Your task to perform on an android device: see tabs open on other devices in the chrome app Image 0: 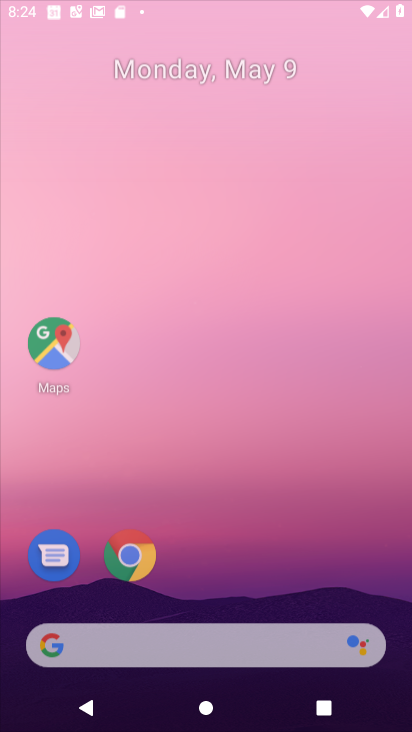
Step 0: drag from (190, 577) to (206, 301)
Your task to perform on an android device: see tabs open on other devices in the chrome app Image 1: 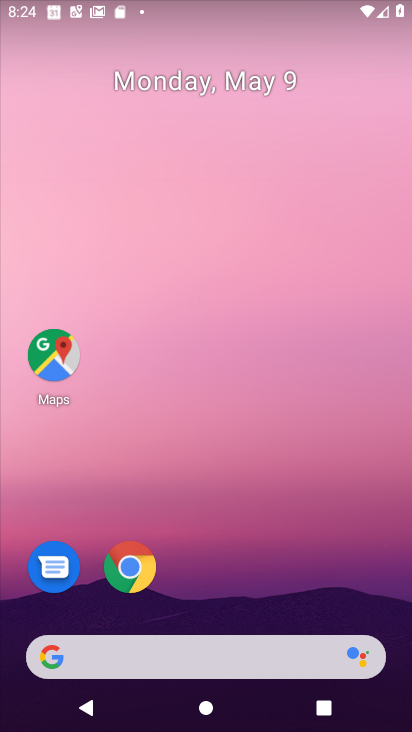
Step 1: drag from (176, 609) to (262, 286)
Your task to perform on an android device: see tabs open on other devices in the chrome app Image 2: 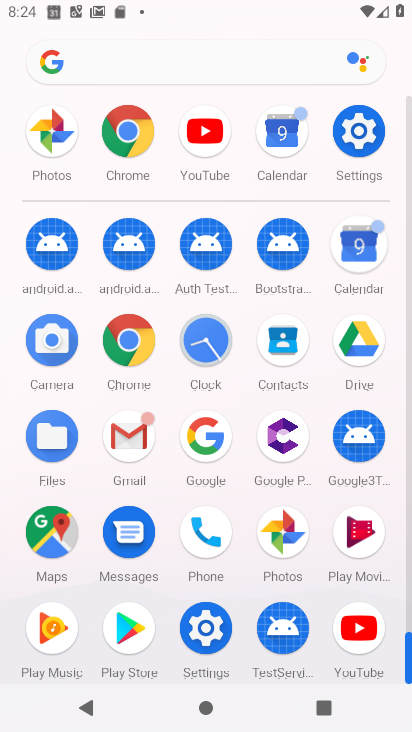
Step 2: click (120, 333)
Your task to perform on an android device: see tabs open on other devices in the chrome app Image 3: 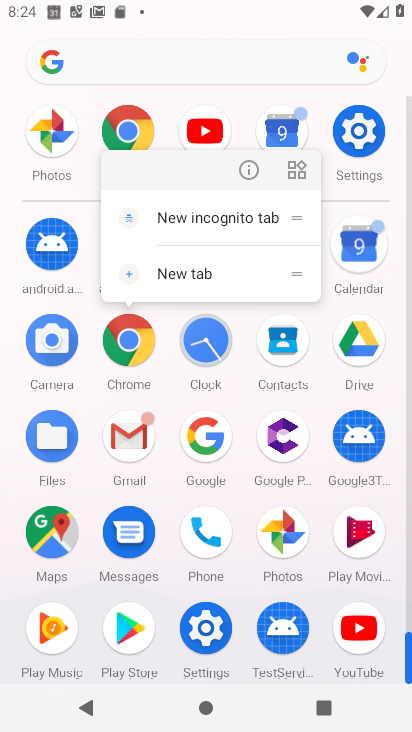
Step 3: click (251, 180)
Your task to perform on an android device: see tabs open on other devices in the chrome app Image 4: 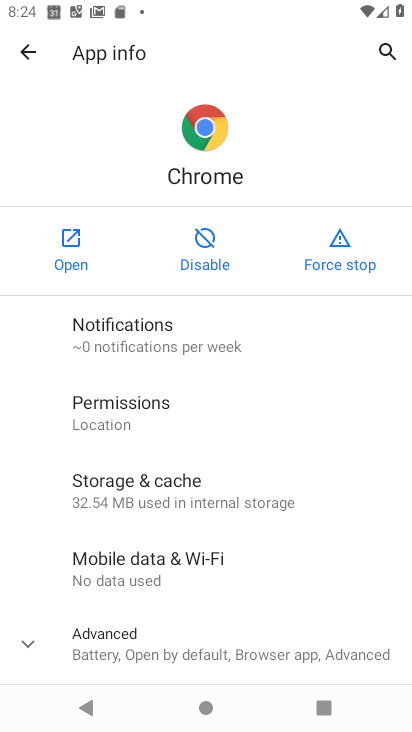
Step 4: click (75, 257)
Your task to perform on an android device: see tabs open on other devices in the chrome app Image 5: 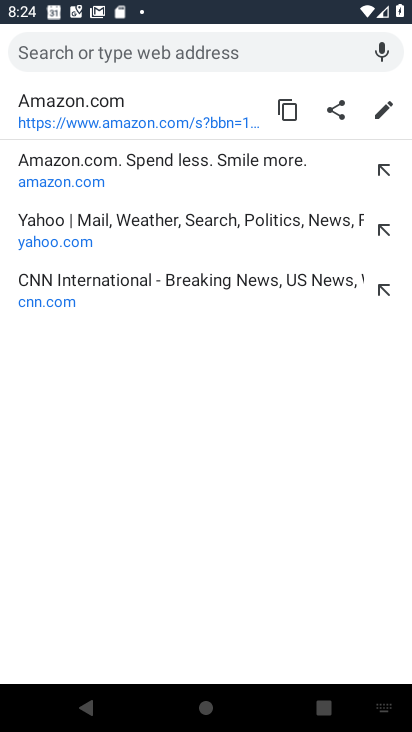
Step 5: press back button
Your task to perform on an android device: see tabs open on other devices in the chrome app Image 6: 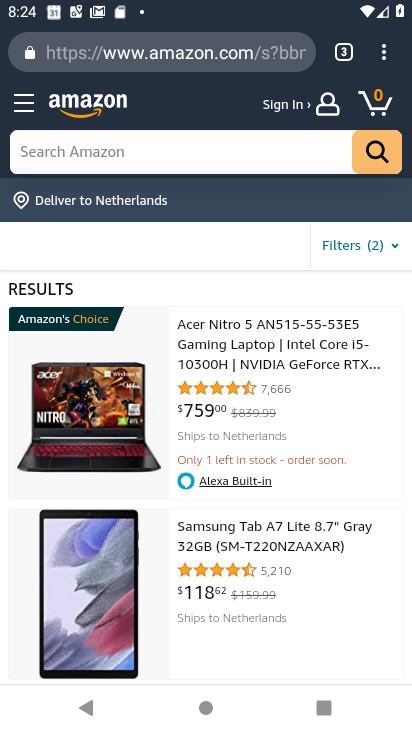
Step 6: drag from (372, 51) to (265, 242)
Your task to perform on an android device: see tabs open on other devices in the chrome app Image 7: 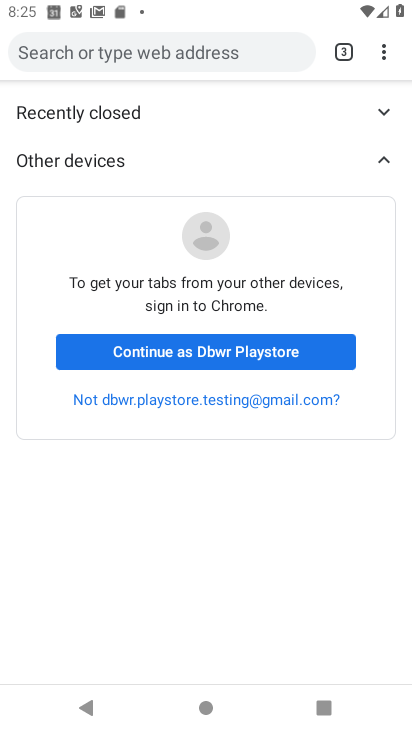
Step 7: click (378, 161)
Your task to perform on an android device: see tabs open on other devices in the chrome app Image 8: 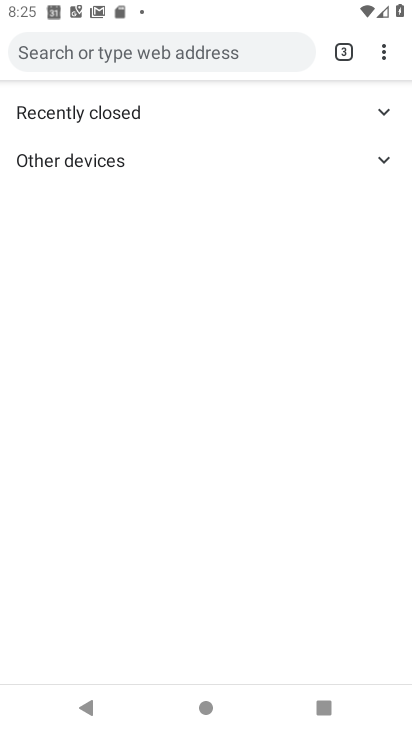
Step 8: click (378, 161)
Your task to perform on an android device: see tabs open on other devices in the chrome app Image 9: 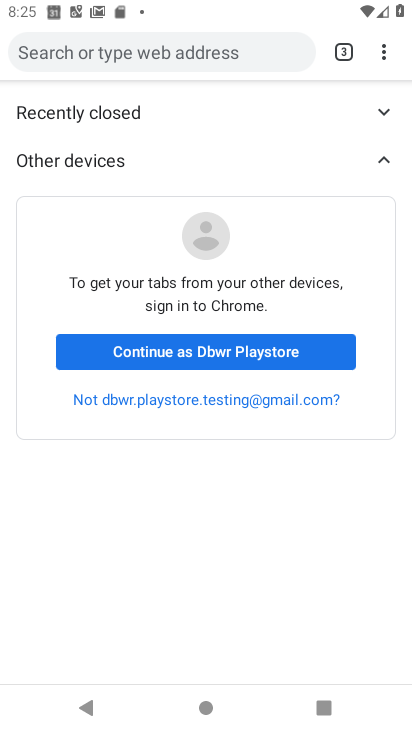
Step 9: click (178, 350)
Your task to perform on an android device: see tabs open on other devices in the chrome app Image 10: 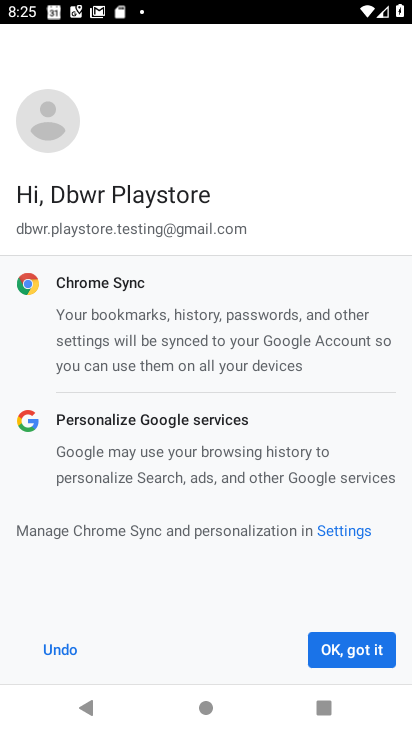
Step 10: drag from (198, 573) to (394, 313)
Your task to perform on an android device: see tabs open on other devices in the chrome app Image 11: 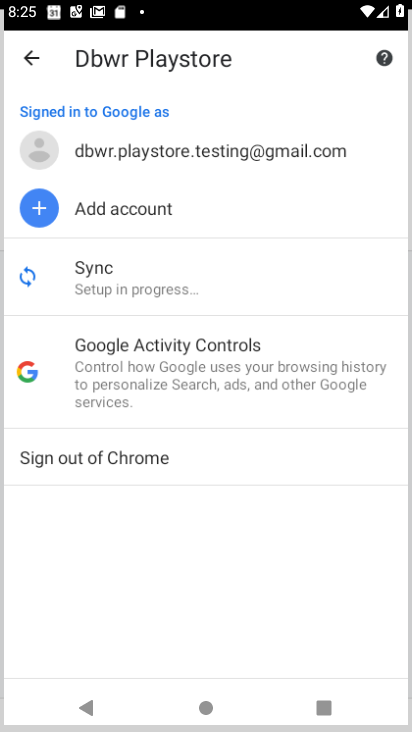
Step 11: click (353, 640)
Your task to perform on an android device: see tabs open on other devices in the chrome app Image 12: 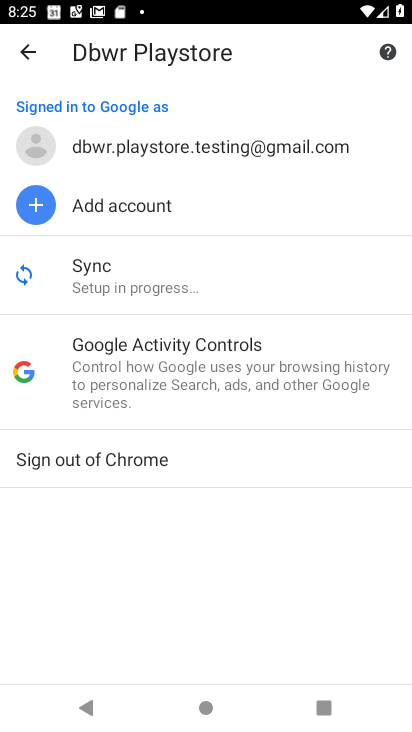
Step 12: task complete